Your task to perform on an android device: open the mobile data screen to see how much data has been used Image 0: 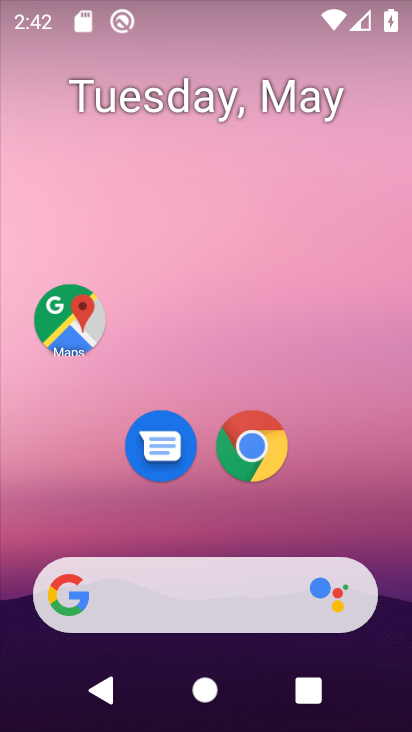
Step 0: click (253, 449)
Your task to perform on an android device: open the mobile data screen to see how much data has been used Image 1: 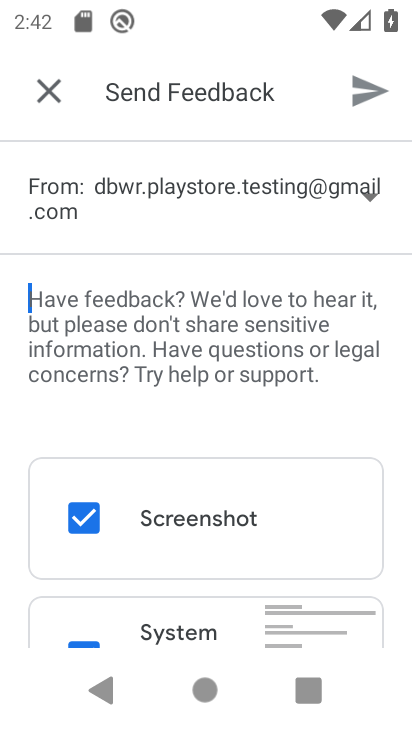
Step 1: press home button
Your task to perform on an android device: open the mobile data screen to see how much data has been used Image 2: 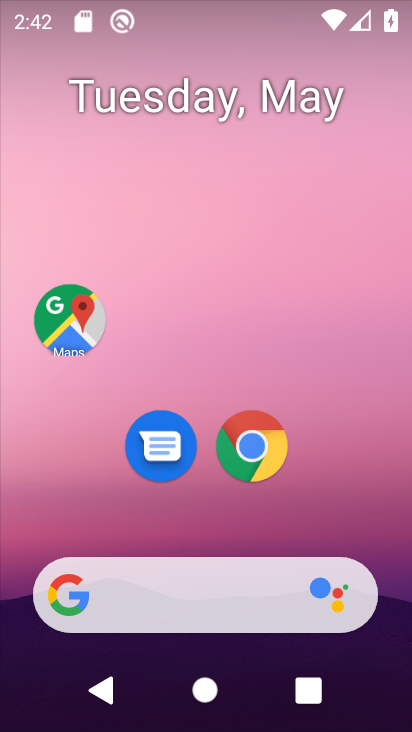
Step 2: drag from (369, 468) to (408, 8)
Your task to perform on an android device: open the mobile data screen to see how much data has been used Image 3: 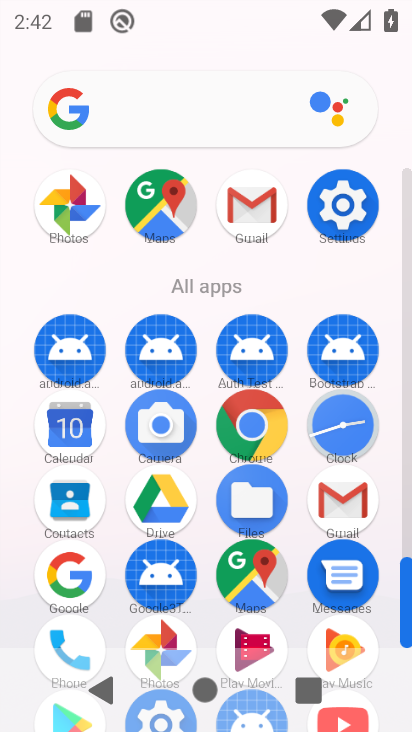
Step 3: click (350, 225)
Your task to perform on an android device: open the mobile data screen to see how much data has been used Image 4: 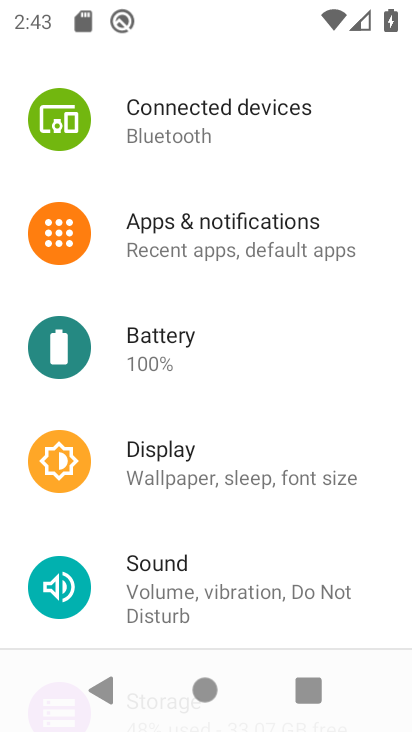
Step 4: drag from (272, 179) to (250, 595)
Your task to perform on an android device: open the mobile data screen to see how much data has been used Image 5: 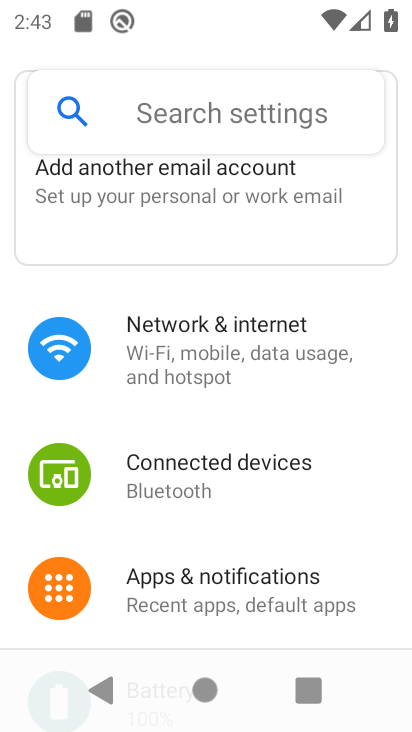
Step 5: click (254, 359)
Your task to perform on an android device: open the mobile data screen to see how much data has been used Image 6: 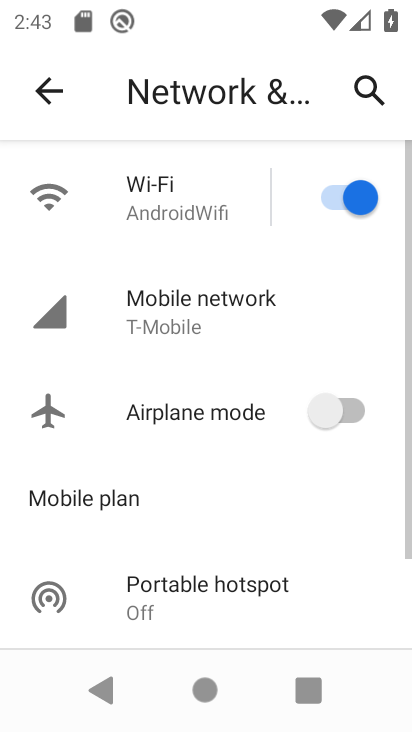
Step 6: click (178, 311)
Your task to perform on an android device: open the mobile data screen to see how much data has been used Image 7: 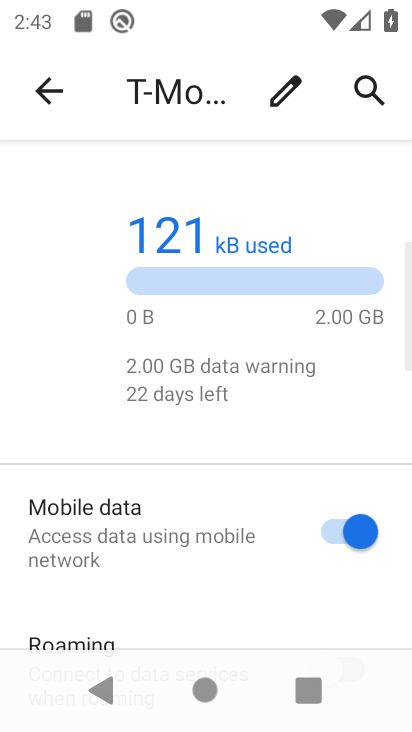
Step 7: task complete